Your task to perform on an android device: See recent photos Image 0: 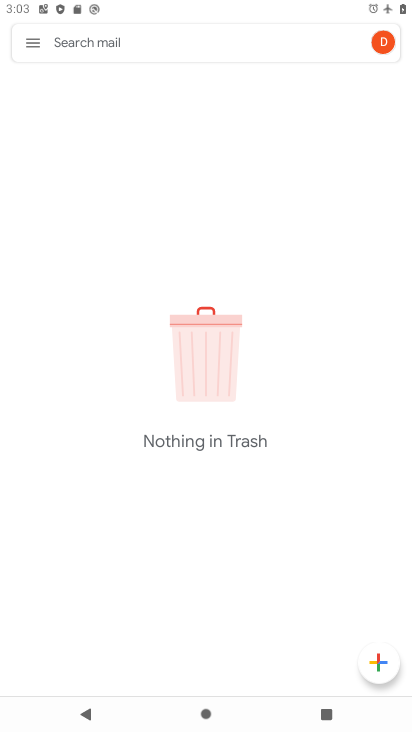
Step 0: press home button
Your task to perform on an android device: See recent photos Image 1: 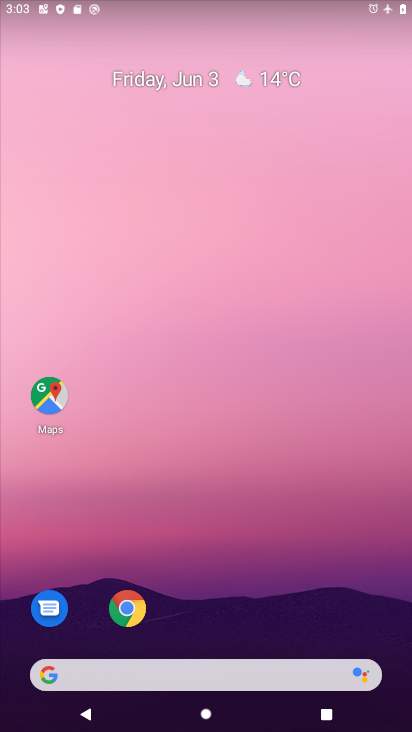
Step 1: drag from (175, 658) to (145, 402)
Your task to perform on an android device: See recent photos Image 2: 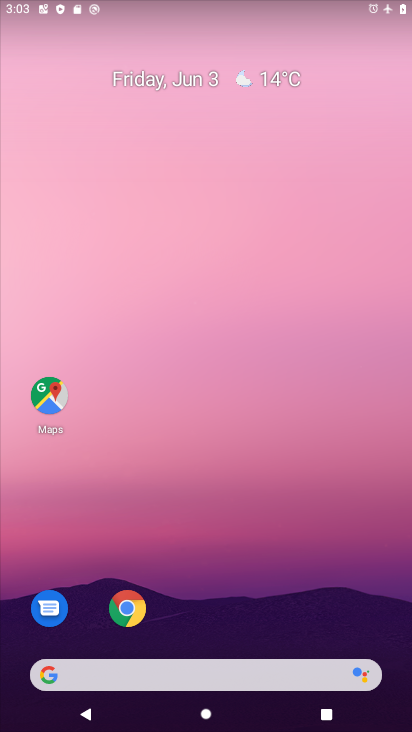
Step 2: drag from (223, 672) to (199, 91)
Your task to perform on an android device: See recent photos Image 3: 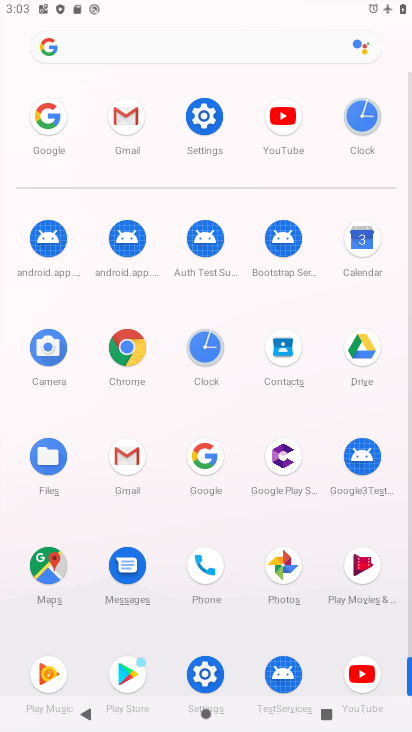
Step 3: click (280, 572)
Your task to perform on an android device: See recent photos Image 4: 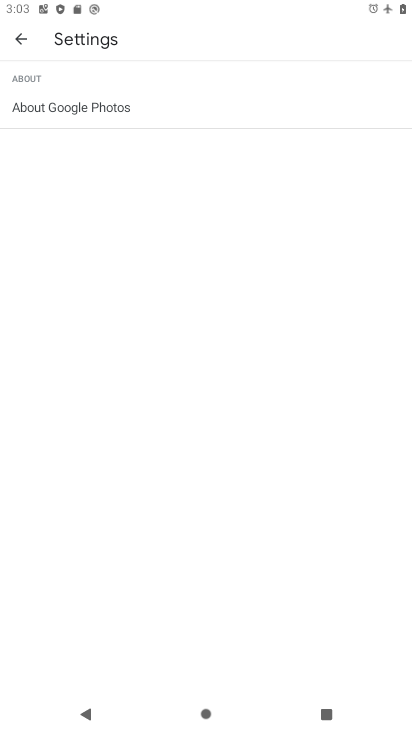
Step 4: click (15, 29)
Your task to perform on an android device: See recent photos Image 5: 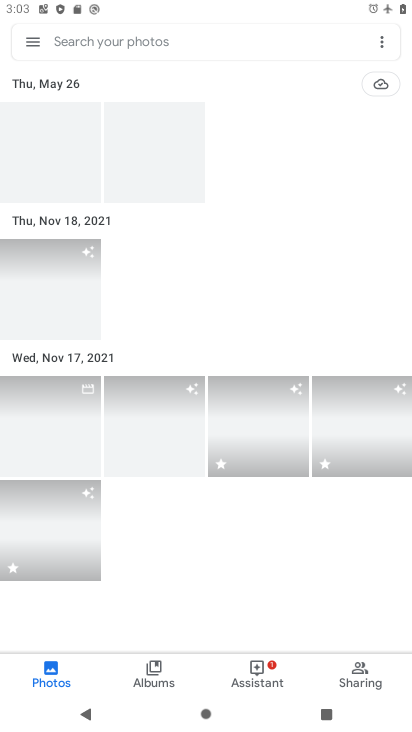
Step 5: click (28, 675)
Your task to perform on an android device: See recent photos Image 6: 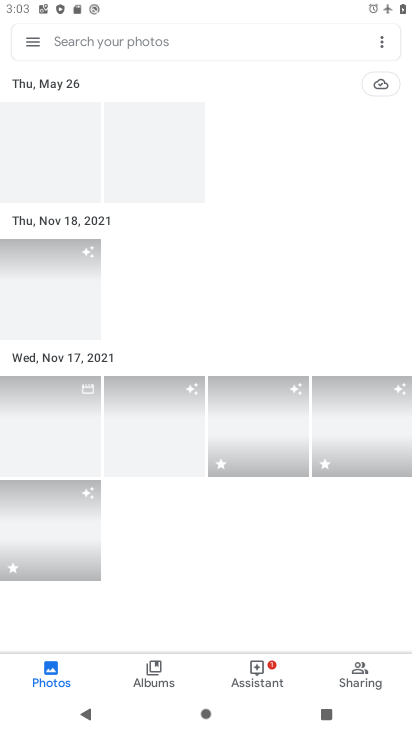
Step 6: task complete